Your task to perform on an android device: Go to Yahoo.com Image 0: 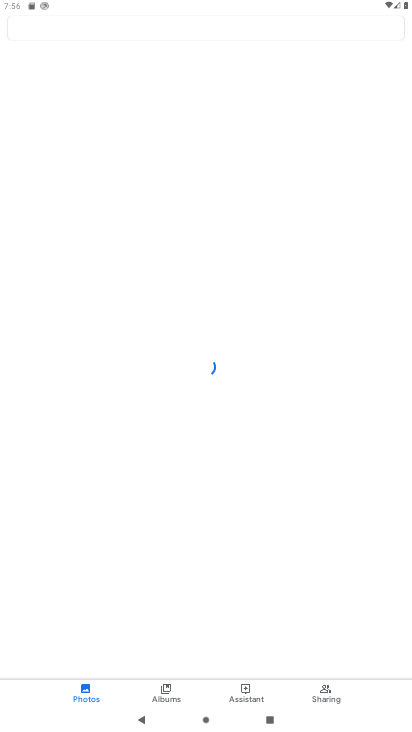
Step 0: press home button
Your task to perform on an android device: Go to Yahoo.com Image 1: 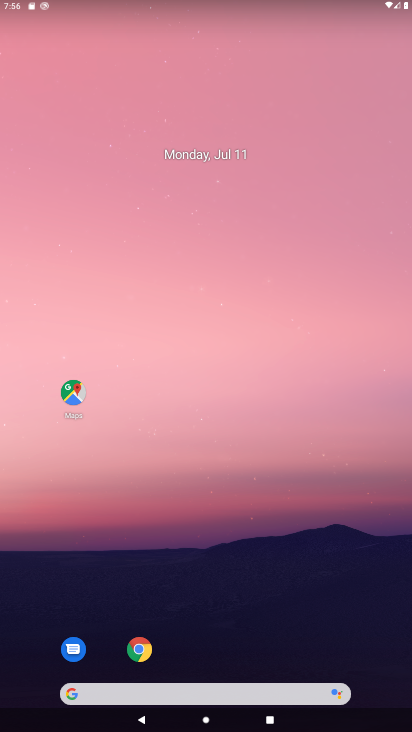
Step 1: click (139, 647)
Your task to perform on an android device: Go to Yahoo.com Image 2: 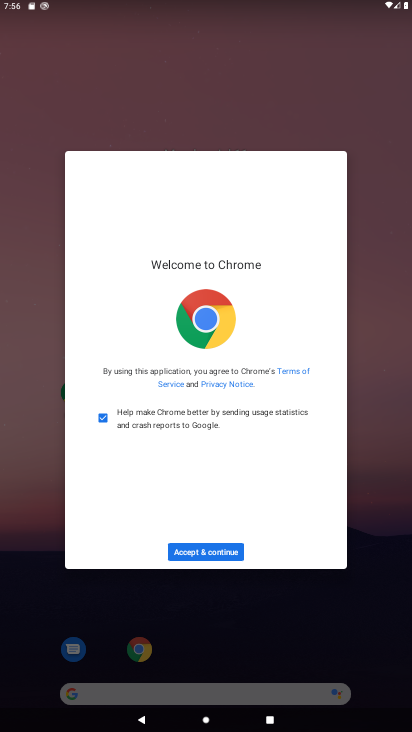
Step 2: click (228, 550)
Your task to perform on an android device: Go to Yahoo.com Image 3: 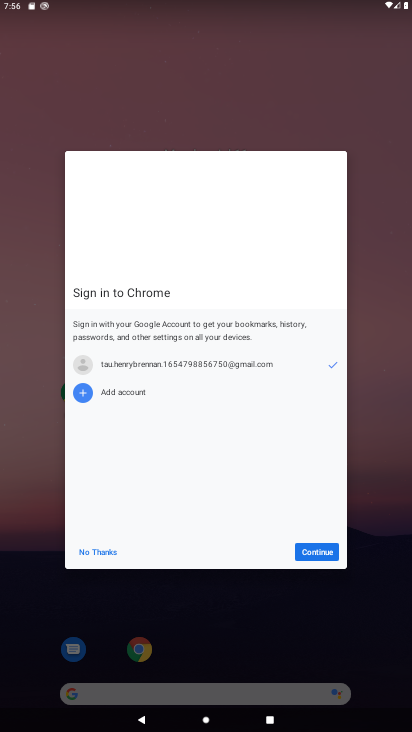
Step 3: click (313, 548)
Your task to perform on an android device: Go to Yahoo.com Image 4: 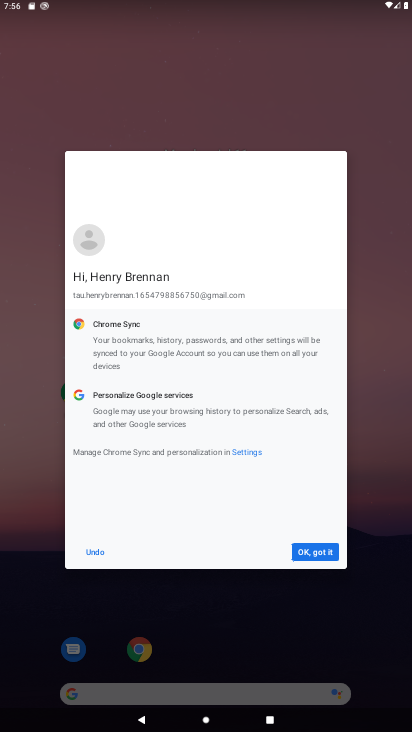
Step 4: click (313, 548)
Your task to perform on an android device: Go to Yahoo.com Image 5: 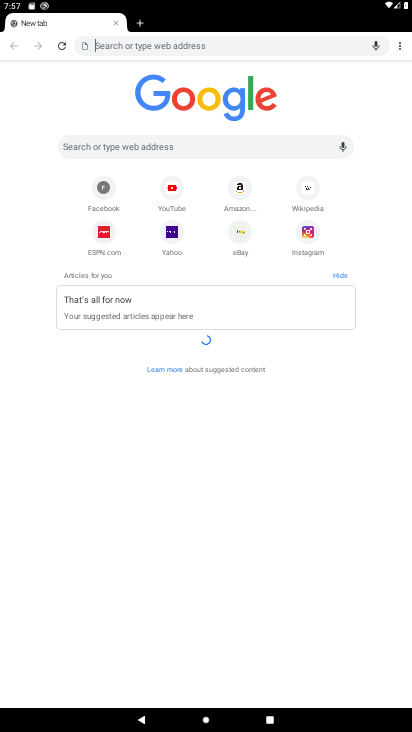
Step 5: click (169, 232)
Your task to perform on an android device: Go to Yahoo.com Image 6: 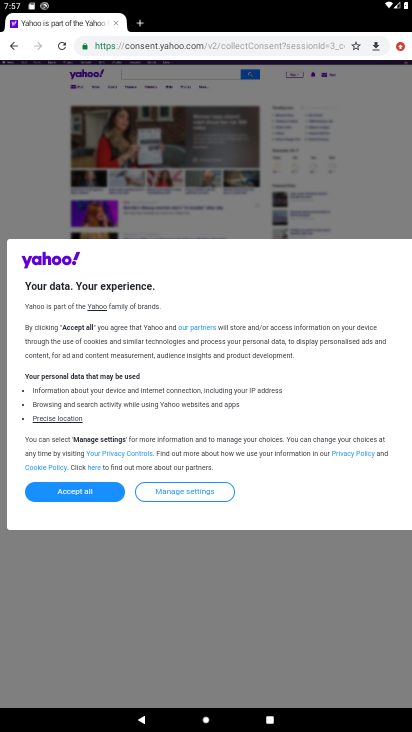
Step 6: task complete